Your task to perform on an android device: change text size in settings app Image 0: 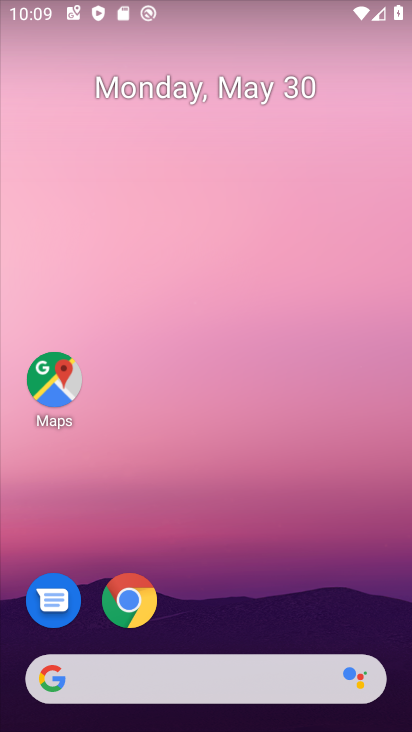
Step 0: drag from (179, 618) to (319, 167)
Your task to perform on an android device: change text size in settings app Image 1: 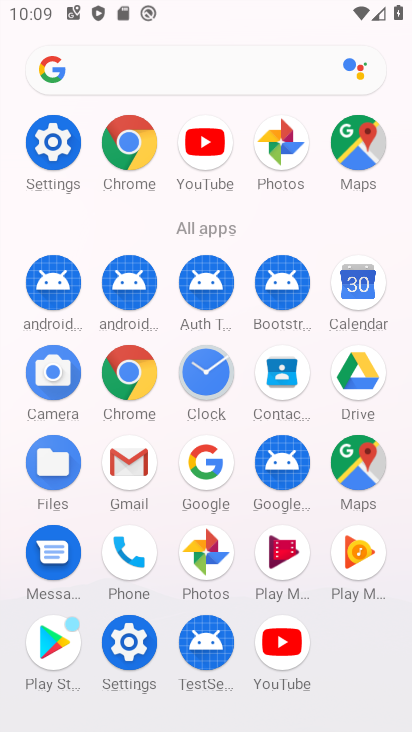
Step 1: click (131, 655)
Your task to perform on an android device: change text size in settings app Image 2: 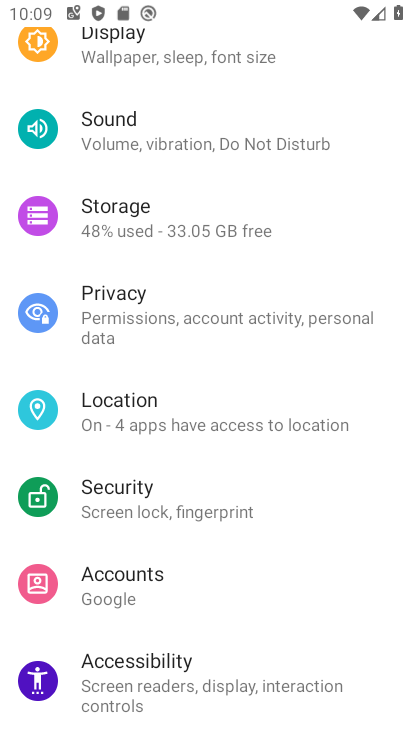
Step 2: click (175, 59)
Your task to perform on an android device: change text size in settings app Image 3: 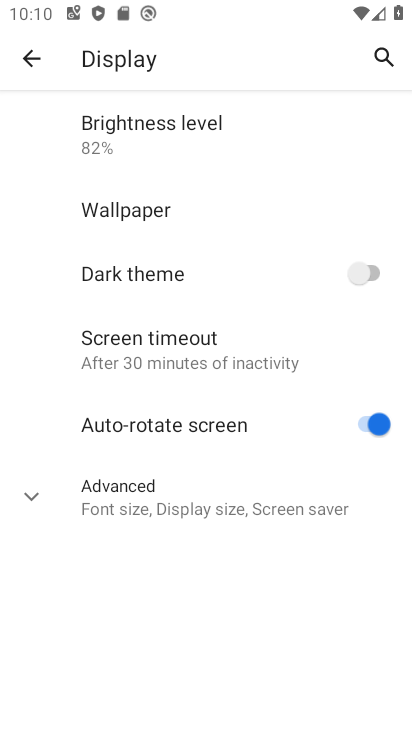
Step 3: click (208, 511)
Your task to perform on an android device: change text size in settings app Image 4: 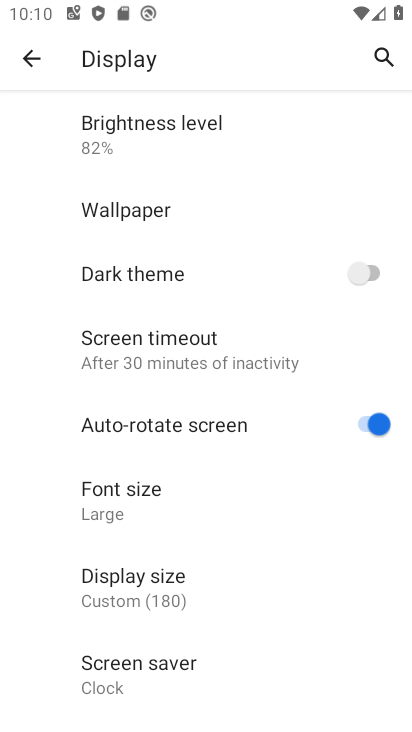
Step 4: click (197, 530)
Your task to perform on an android device: change text size in settings app Image 5: 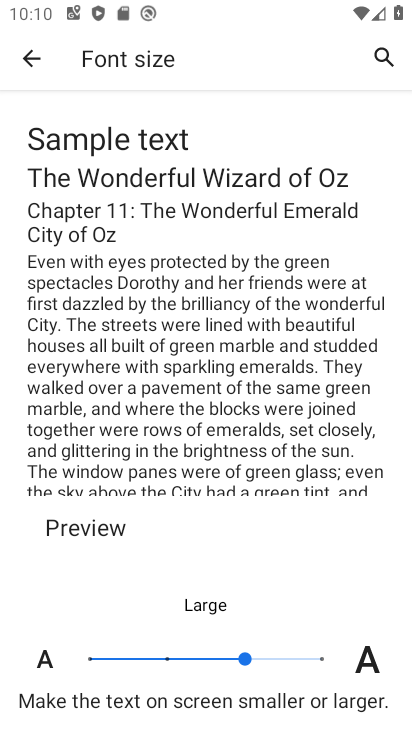
Step 5: click (166, 660)
Your task to perform on an android device: change text size in settings app Image 6: 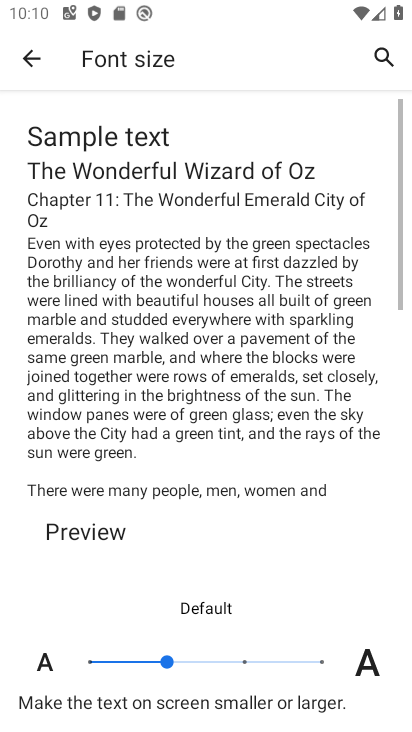
Step 6: task complete